Your task to perform on an android device: empty trash in google photos Image 0: 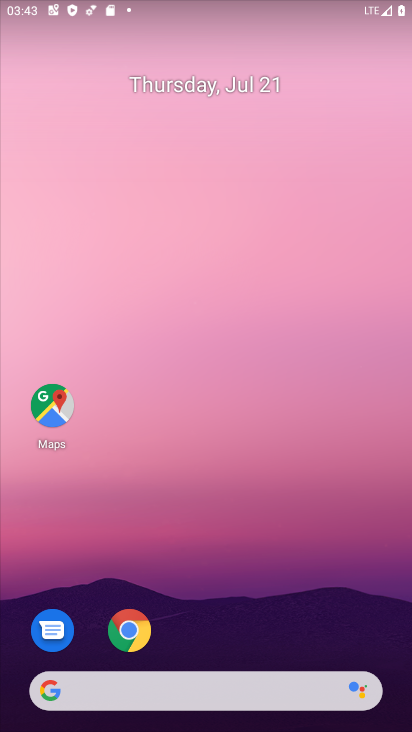
Step 0: drag from (175, 635) to (134, 53)
Your task to perform on an android device: empty trash in google photos Image 1: 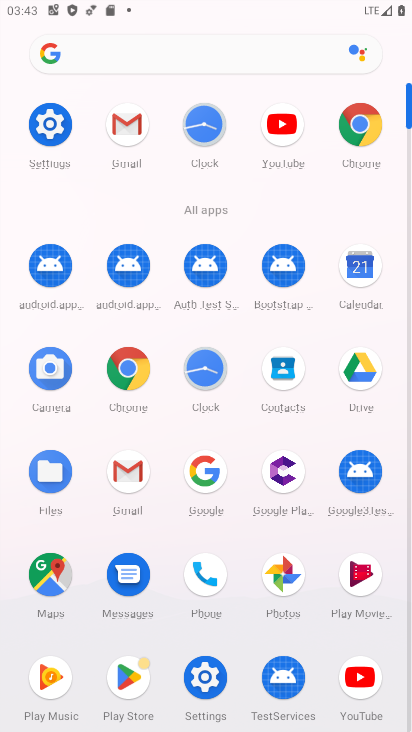
Step 1: click (298, 579)
Your task to perform on an android device: empty trash in google photos Image 2: 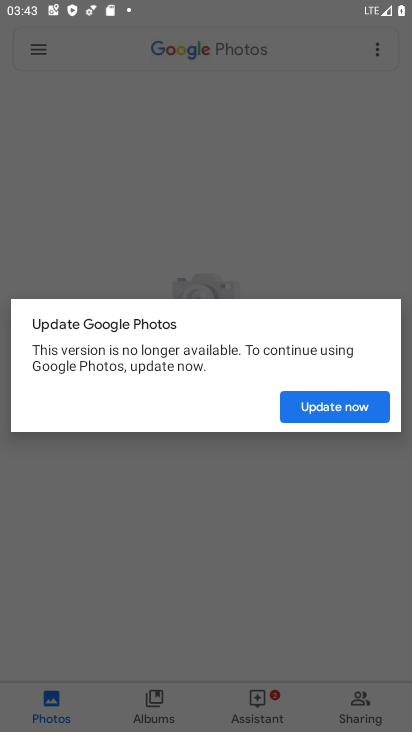
Step 2: click (330, 416)
Your task to perform on an android device: empty trash in google photos Image 3: 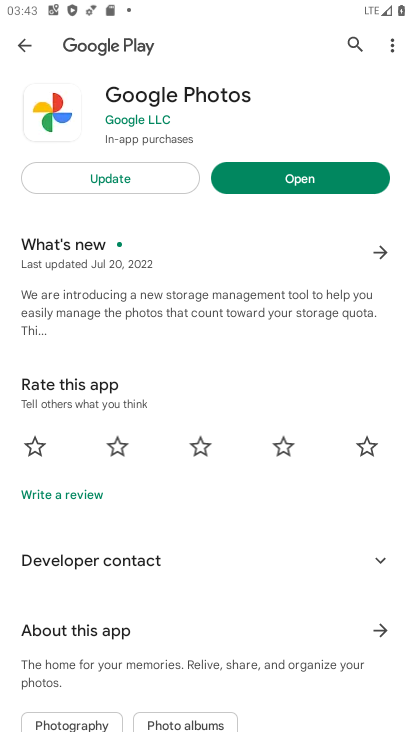
Step 3: click (253, 168)
Your task to perform on an android device: empty trash in google photos Image 4: 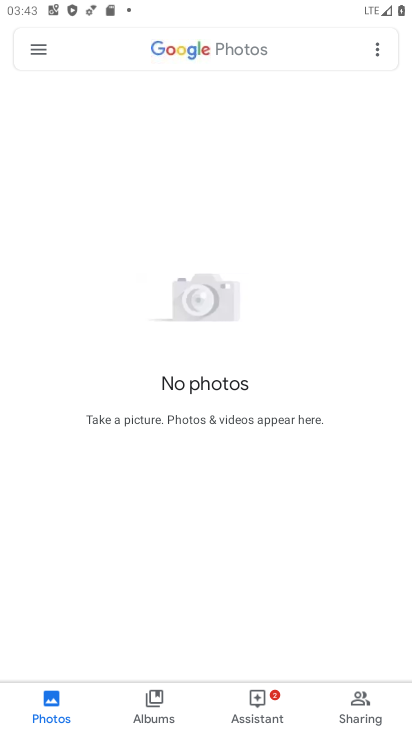
Step 4: click (50, 54)
Your task to perform on an android device: empty trash in google photos Image 5: 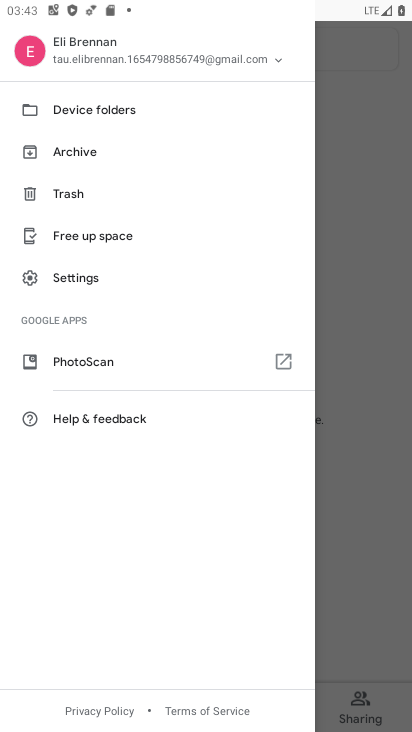
Step 5: click (106, 189)
Your task to perform on an android device: empty trash in google photos Image 6: 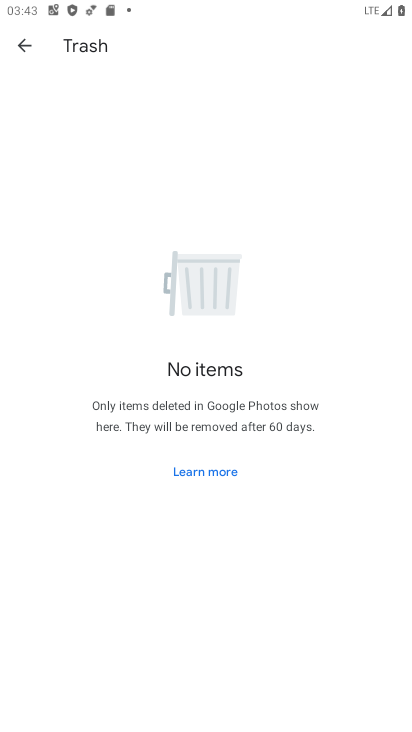
Step 6: task complete